Your task to perform on an android device: Open battery settings Image 0: 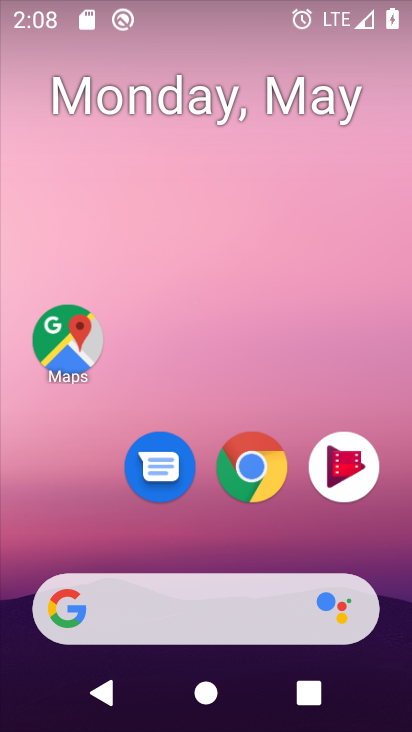
Step 0: drag from (219, 495) to (240, 227)
Your task to perform on an android device: Open battery settings Image 1: 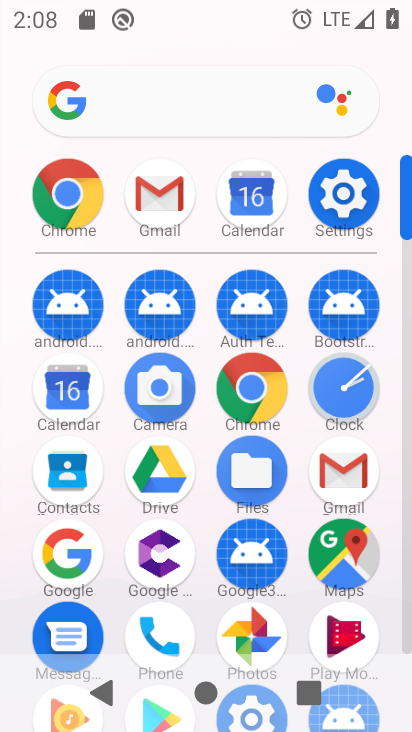
Step 1: click (349, 185)
Your task to perform on an android device: Open battery settings Image 2: 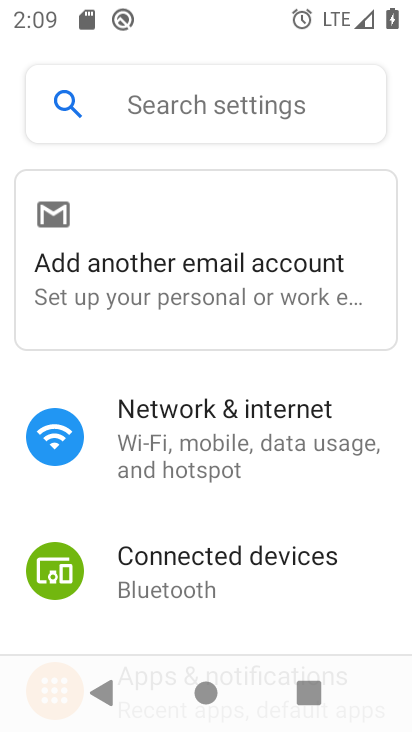
Step 2: drag from (214, 550) to (301, 145)
Your task to perform on an android device: Open battery settings Image 3: 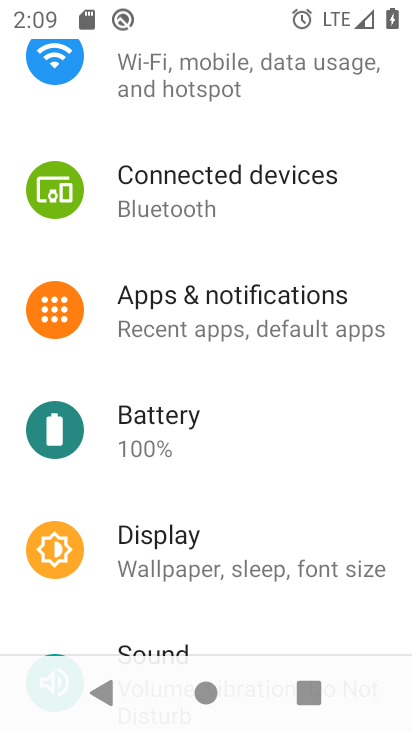
Step 3: click (178, 440)
Your task to perform on an android device: Open battery settings Image 4: 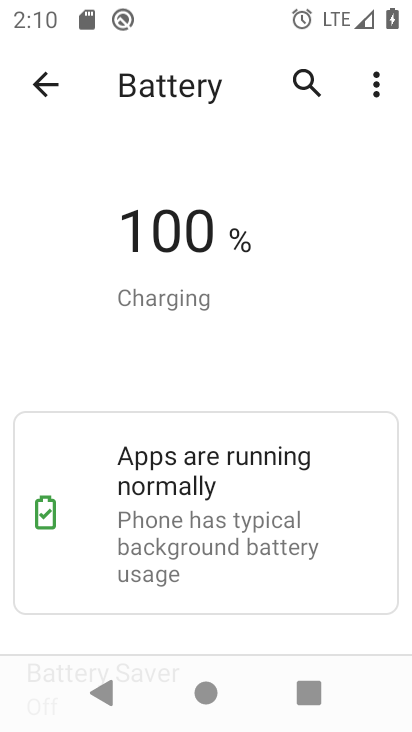
Step 4: task complete